Your task to perform on an android device: Open Amazon Image 0: 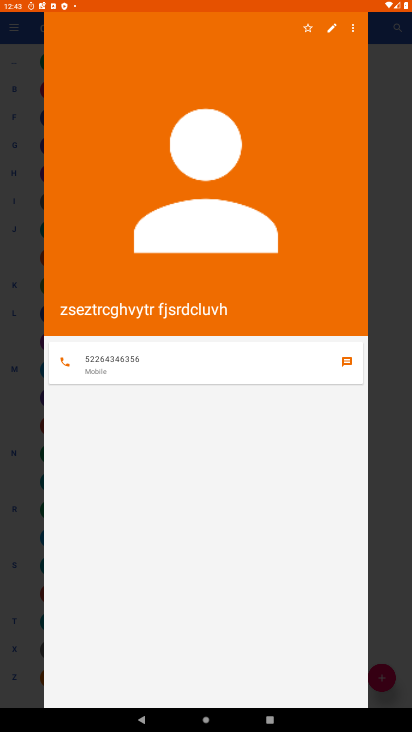
Step 0: press home button
Your task to perform on an android device: Open Amazon Image 1: 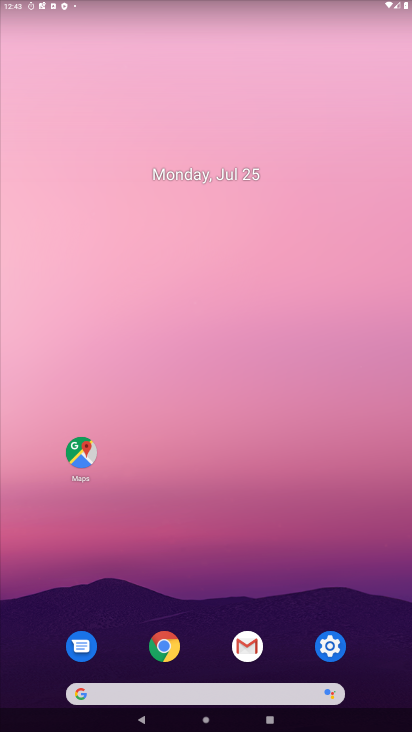
Step 1: drag from (275, 698) to (232, 127)
Your task to perform on an android device: Open Amazon Image 2: 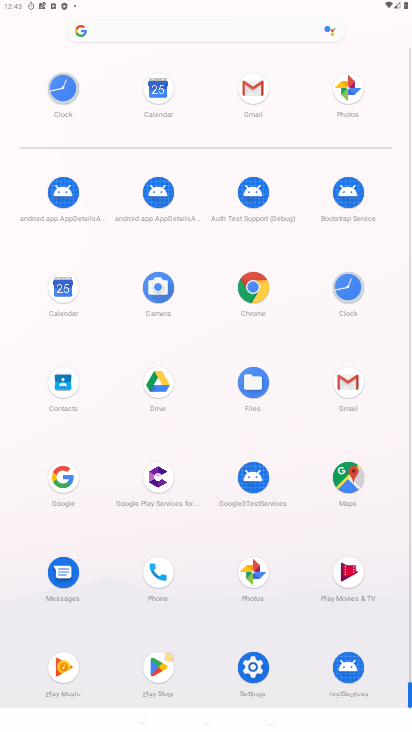
Step 2: click (246, 283)
Your task to perform on an android device: Open Amazon Image 3: 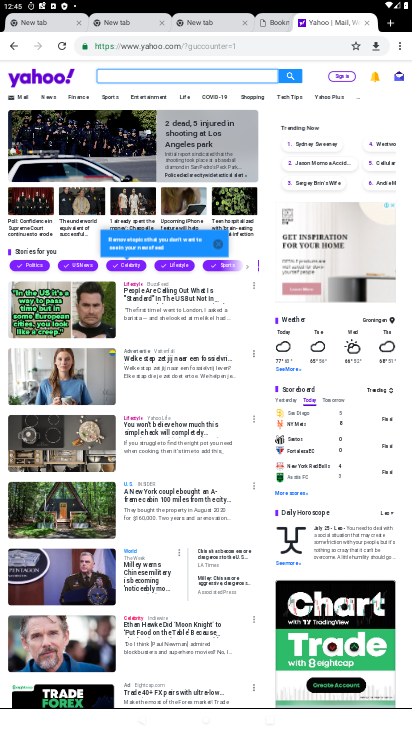
Step 3: click (391, 24)
Your task to perform on an android device: Open Amazon Image 4: 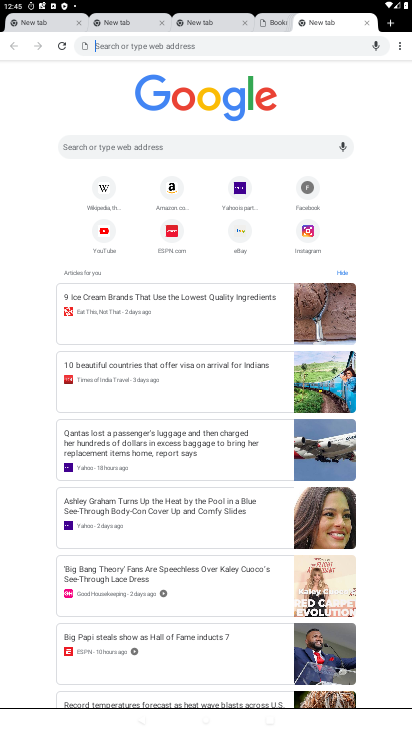
Step 4: click (179, 194)
Your task to perform on an android device: Open Amazon Image 5: 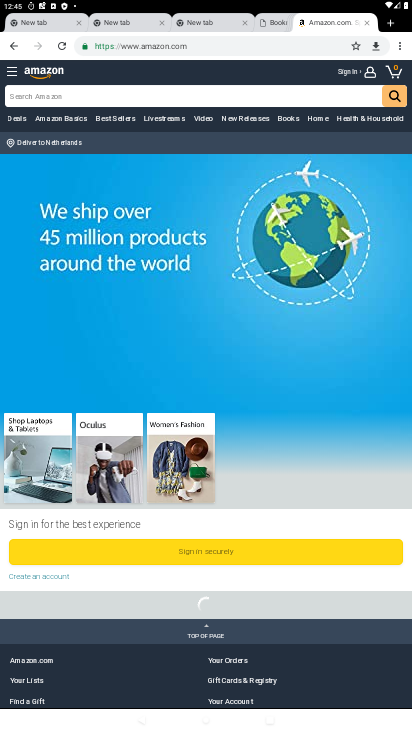
Step 5: task complete